Your task to perform on an android device: Go to Wikipedia Image 0: 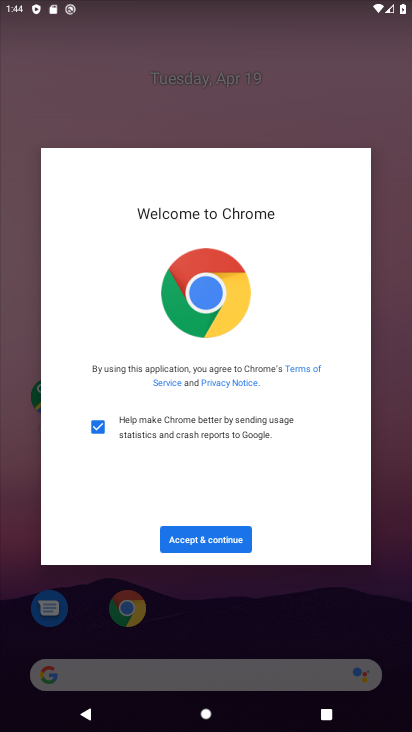
Step 0: click (217, 543)
Your task to perform on an android device: Go to Wikipedia Image 1: 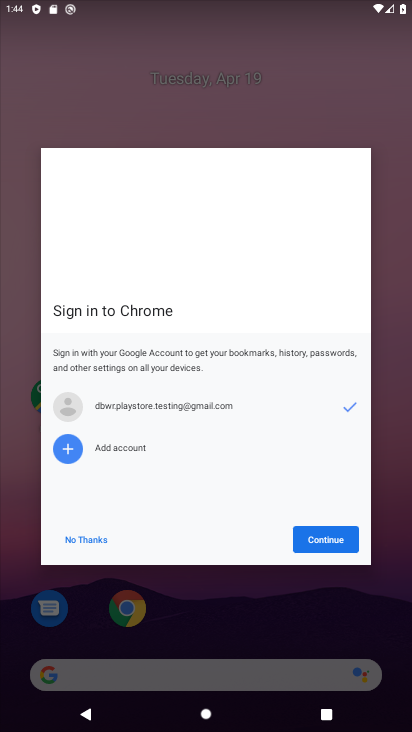
Step 1: click (328, 552)
Your task to perform on an android device: Go to Wikipedia Image 2: 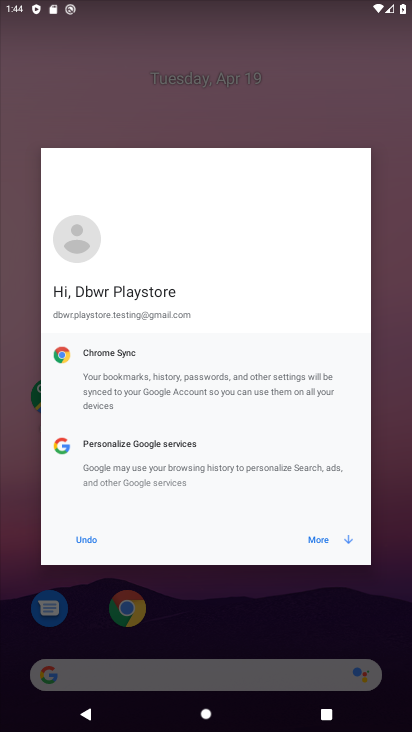
Step 2: click (328, 551)
Your task to perform on an android device: Go to Wikipedia Image 3: 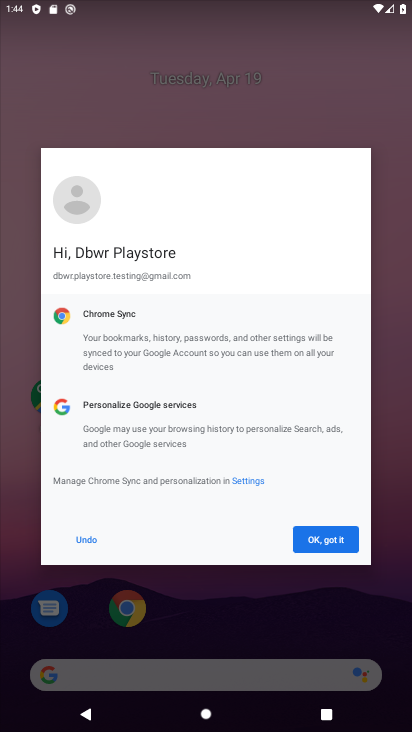
Step 3: click (310, 535)
Your task to perform on an android device: Go to Wikipedia Image 4: 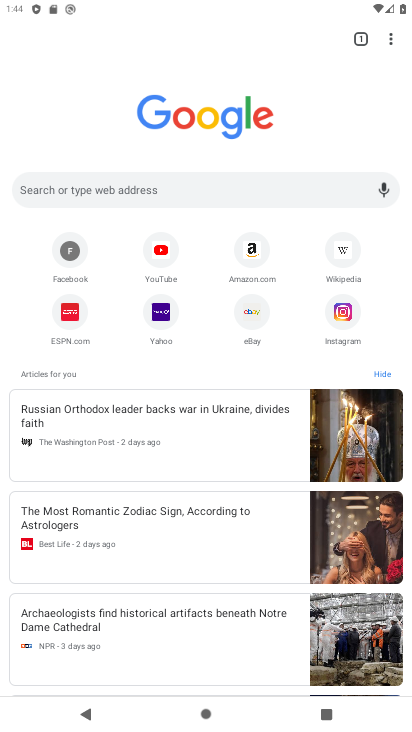
Step 4: click (343, 250)
Your task to perform on an android device: Go to Wikipedia Image 5: 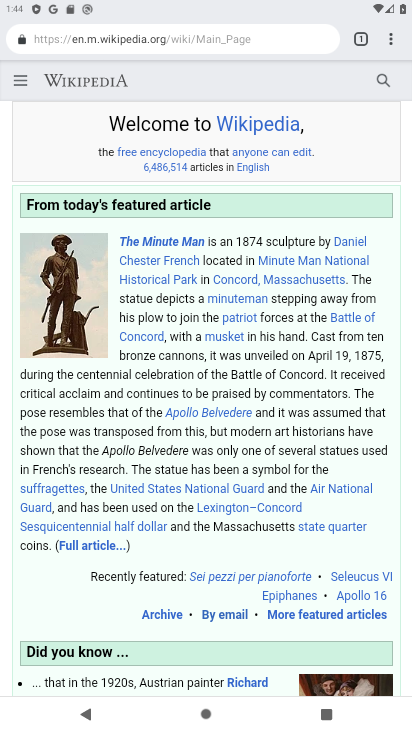
Step 5: task complete